Your task to perform on an android device: search for starred emails in the gmail app Image 0: 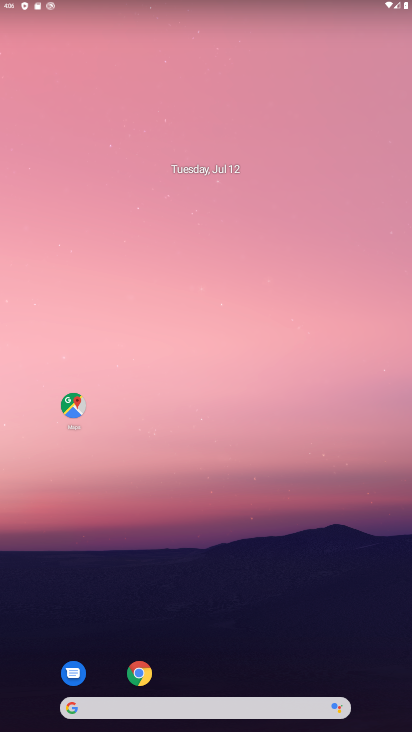
Step 0: drag from (220, 625) to (252, 8)
Your task to perform on an android device: search for starred emails in the gmail app Image 1: 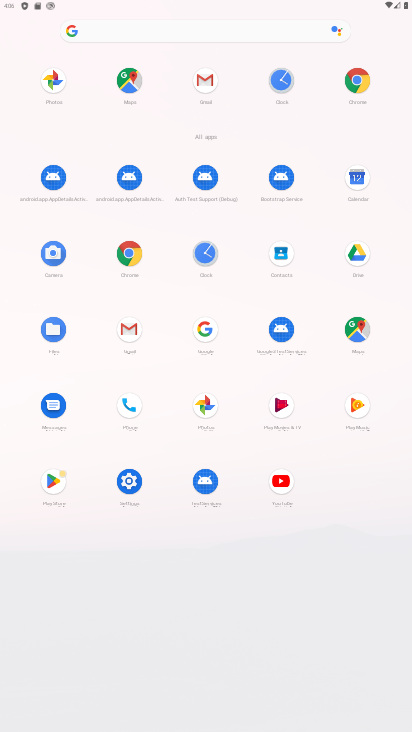
Step 1: click (201, 81)
Your task to perform on an android device: search for starred emails in the gmail app Image 2: 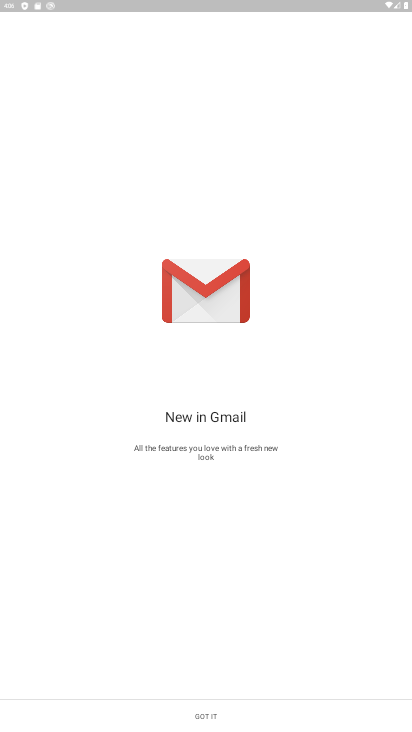
Step 2: click (246, 720)
Your task to perform on an android device: search for starred emails in the gmail app Image 3: 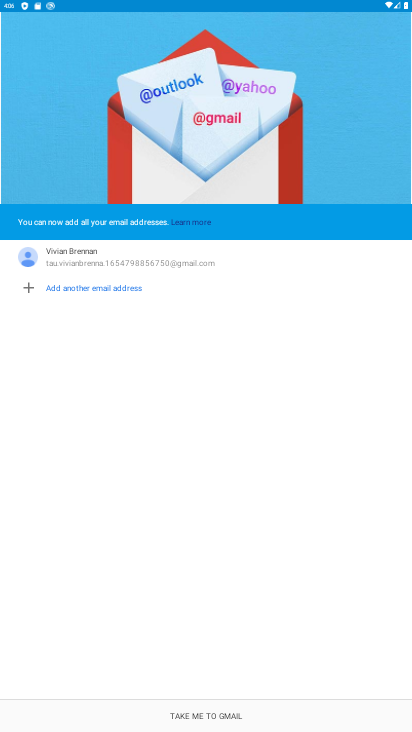
Step 3: click (246, 718)
Your task to perform on an android device: search for starred emails in the gmail app Image 4: 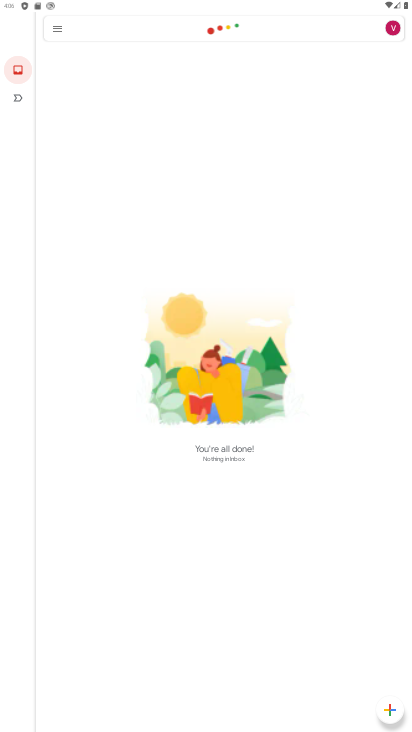
Step 4: click (54, 27)
Your task to perform on an android device: search for starred emails in the gmail app Image 5: 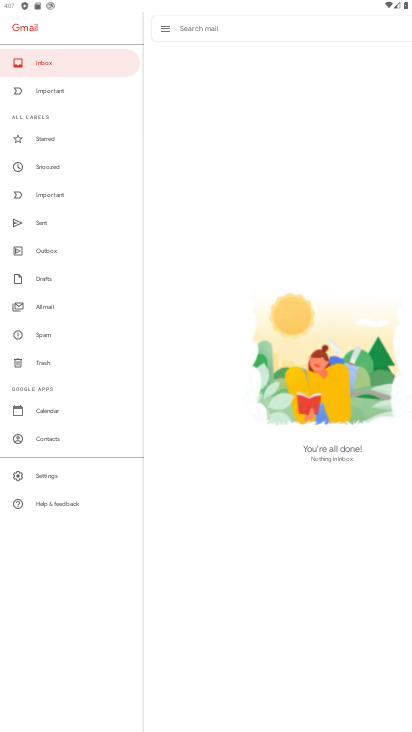
Step 5: click (46, 145)
Your task to perform on an android device: search for starred emails in the gmail app Image 6: 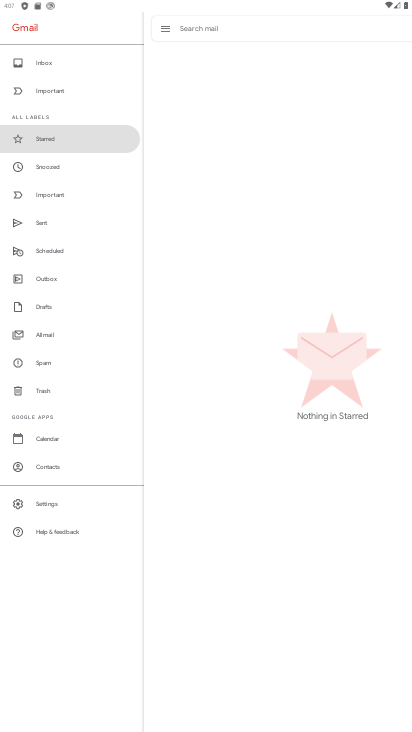
Step 6: task complete